Your task to perform on an android device: change keyboard looks Image 0: 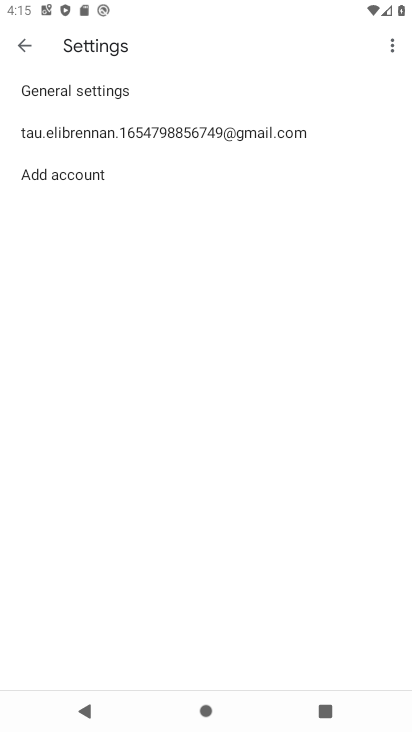
Step 0: press home button
Your task to perform on an android device: change keyboard looks Image 1: 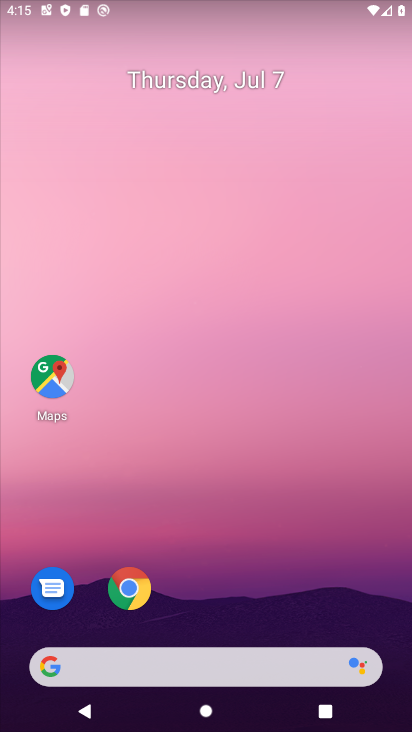
Step 1: drag from (229, 658) to (246, 215)
Your task to perform on an android device: change keyboard looks Image 2: 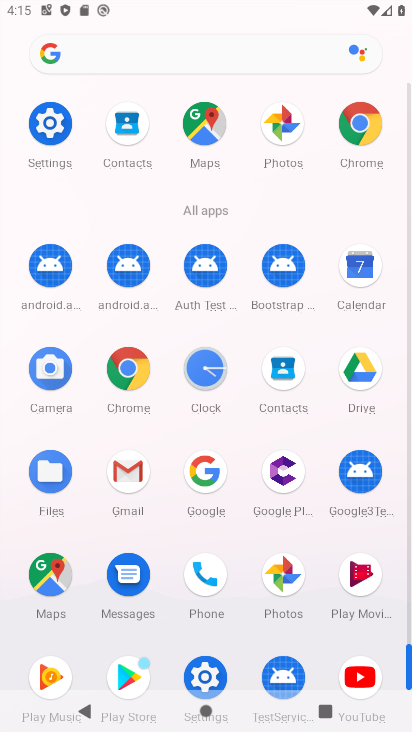
Step 2: click (62, 109)
Your task to perform on an android device: change keyboard looks Image 3: 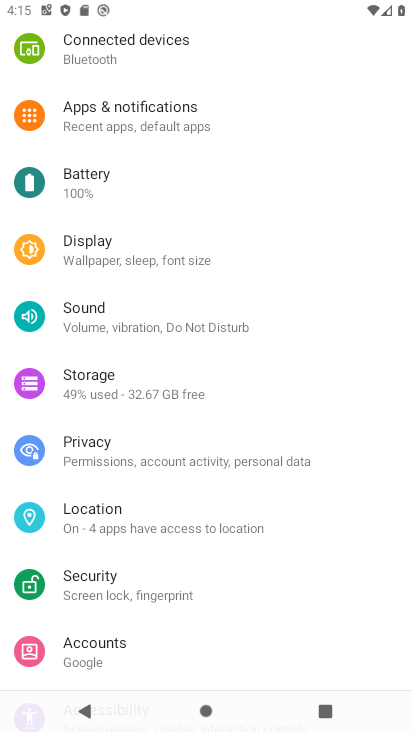
Step 3: drag from (177, 611) to (277, 35)
Your task to perform on an android device: change keyboard looks Image 4: 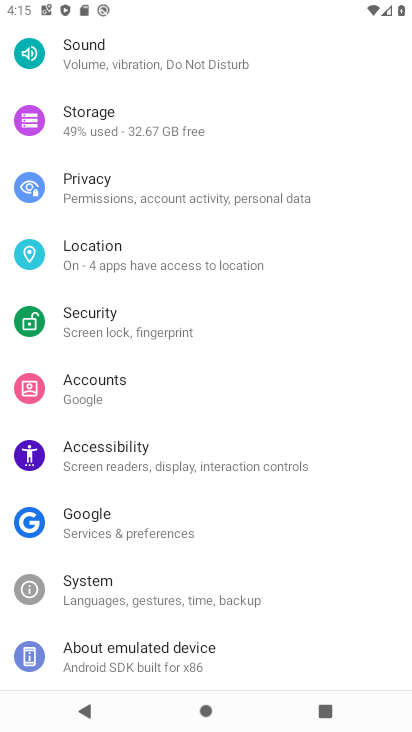
Step 4: click (162, 598)
Your task to perform on an android device: change keyboard looks Image 5: 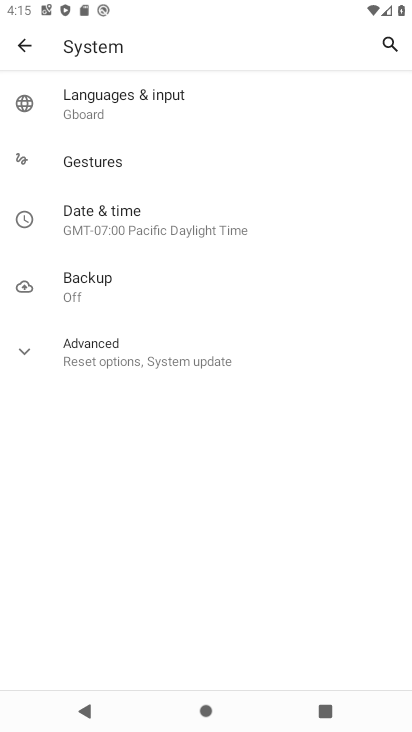
Step 5: click (166, 108)
Your task to perform on an android device: change keyboard looks Image 6: 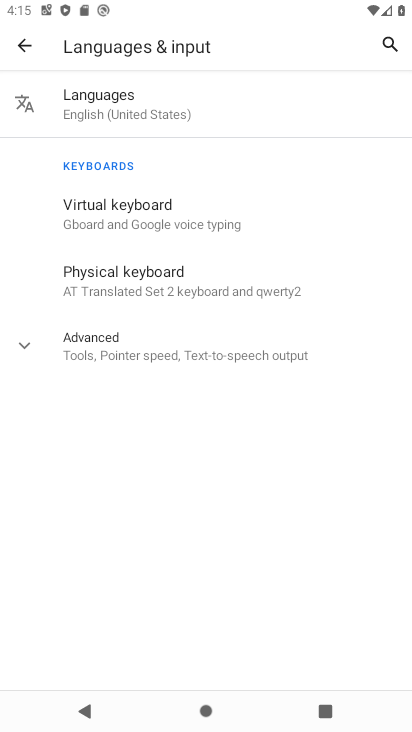
Step 6: click (165, 221)
Your task to perform on an android device: change keyboard looks Image 7: 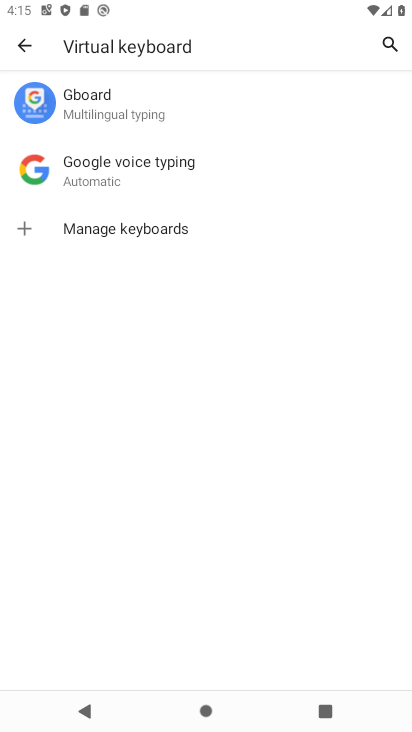
Step 7: click (181, 113)
Your task to perform on an android device: change keyboard looks Image 8: 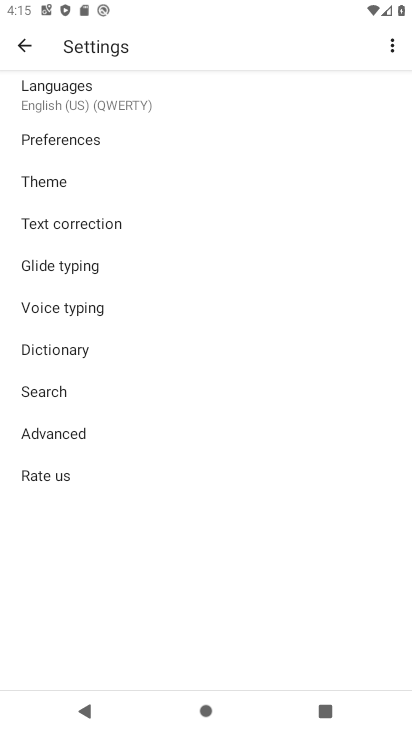
Step 8: click (69, 187)
Your task to perform on an android device: change keyboard looks Image 9: 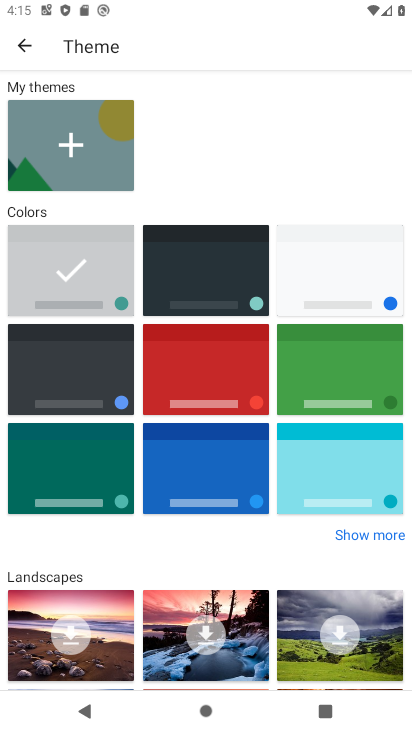
Step 9: click (236, 376)
Your task to perform on an android device: change keyboard looks Image 10: 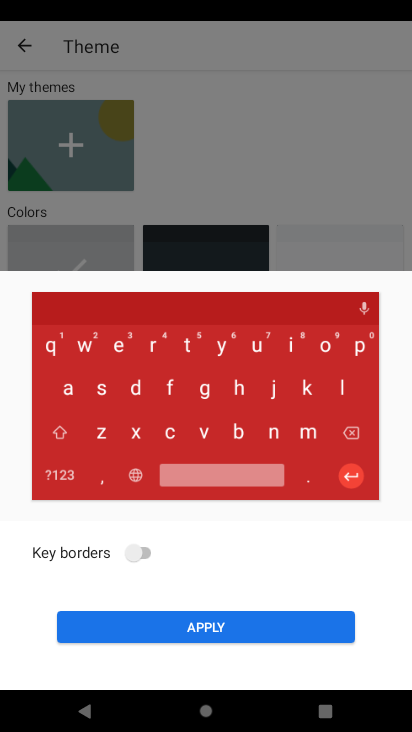
Step 10: click (220, 619)
Your task to perform on an android device: change keyboard looks Image 11: 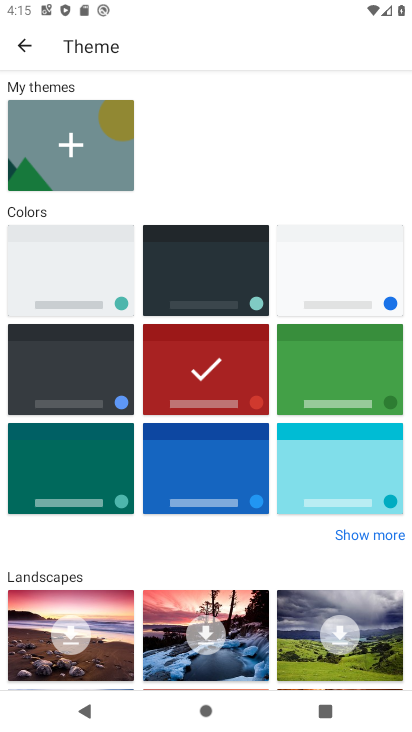
Step 11: task complete